Your task to perform on an android device: What's the weather? Image 0: 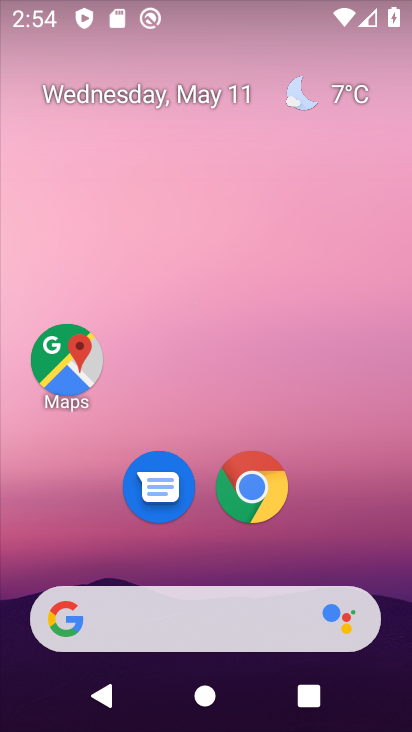
Step 0: drag from (319, 570) to (312, 152)
Your task to perform on an android device: What's the weather? Image 1: 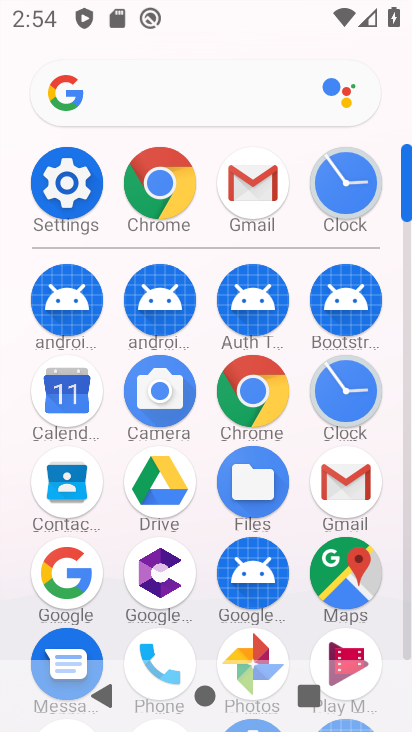
Step 1: click (261, 394)
Your task to perform on an android device: What's the weather? Image 2: 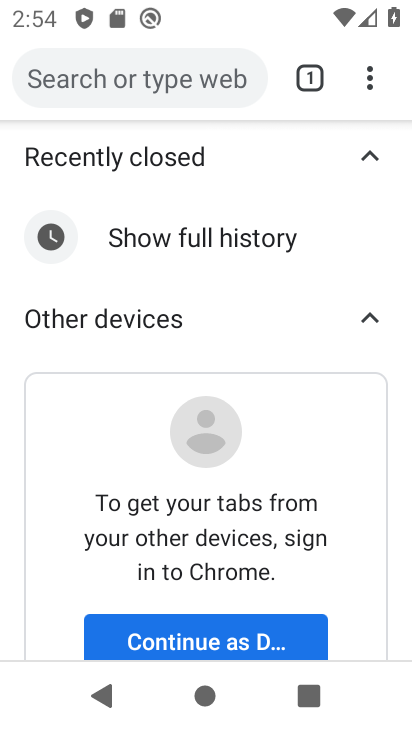
Step 2: click (202, 63)
Your task to perform on an android device: What's the weather? Image 3: 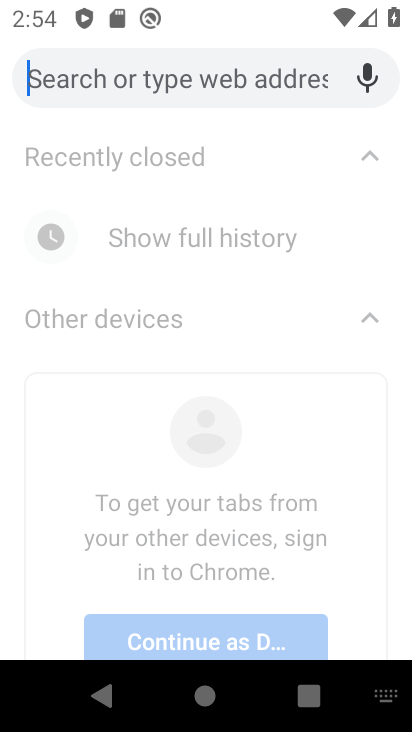
Step 3: type "whats the weather"
Your task to perform on an android device: What's the weather? Image 4: 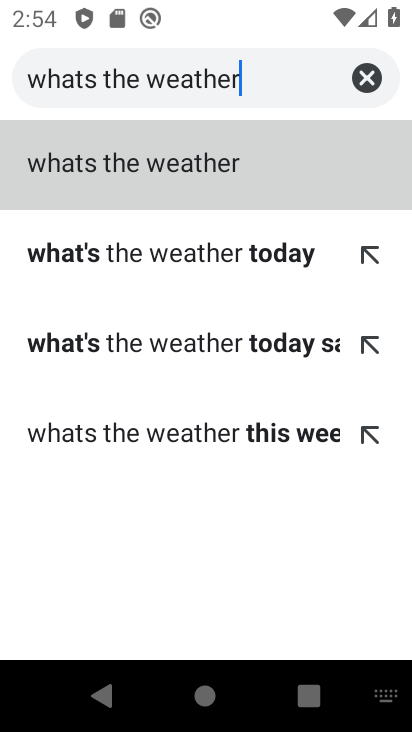
Step 4: click (267, 150)
Your task to perform on an android device: What's the weather? Image 5: 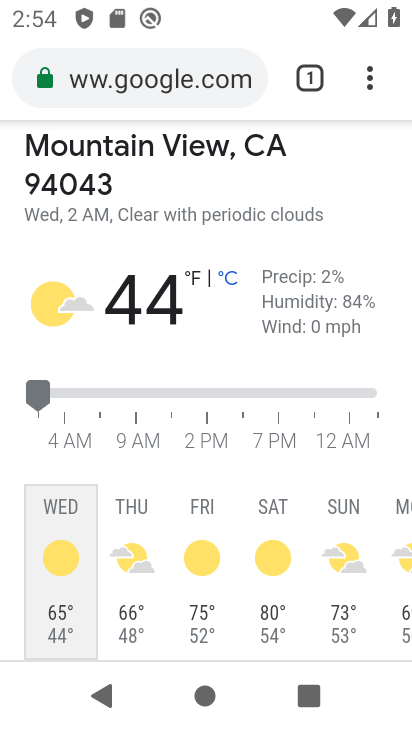
Step 5: task complete